Your task to perform on an android device: toggle airplane mode Image 0: 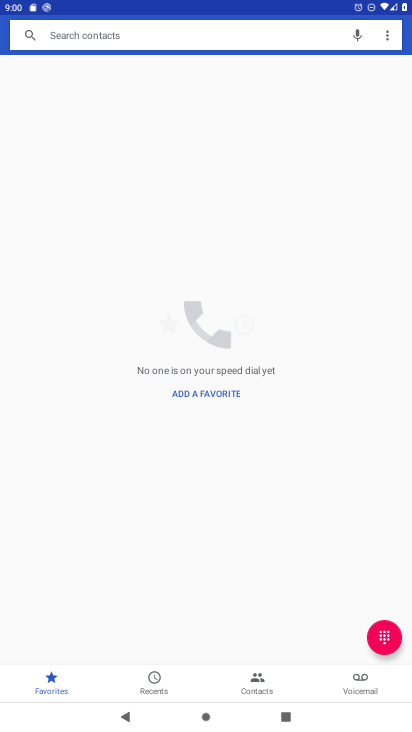
Step 0: press home button
Your task to perform on an android device: toggle airplane mode Image 1: 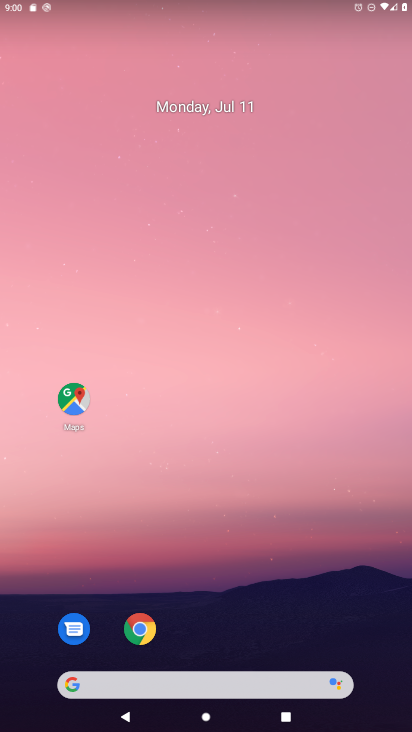
Step 1: drag from (243, 610) to (211, 9)
Your task to perform on an android device: toggle airplane mode Image 2: 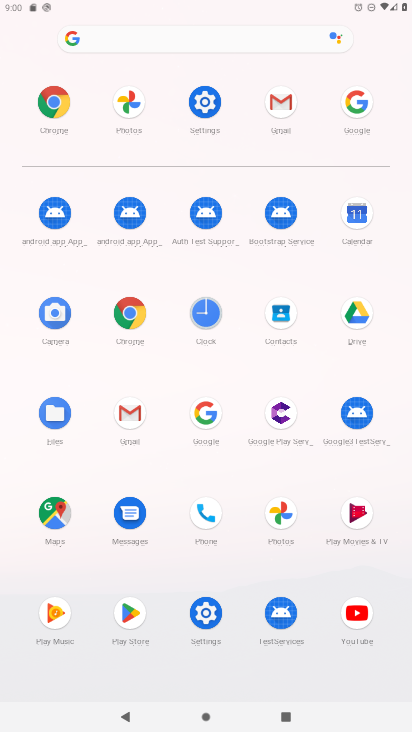
Step 2: click (208, 100)
Your task to perform on an android device: toggle airplane mode Image 3: 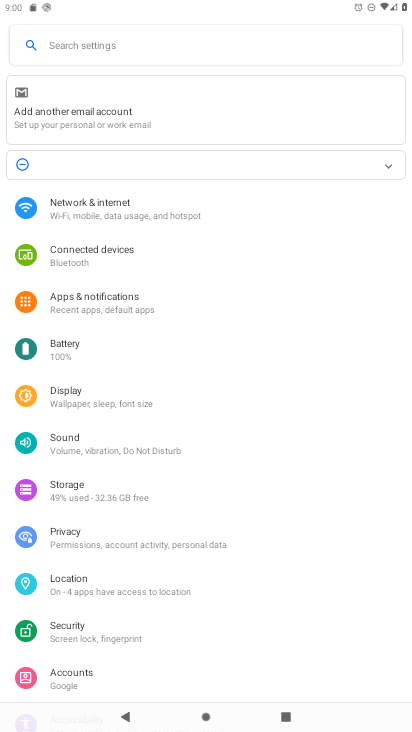
Step 3: click (139, 217)
Your task to perform on an android device: toggle airplane mode Image 4: 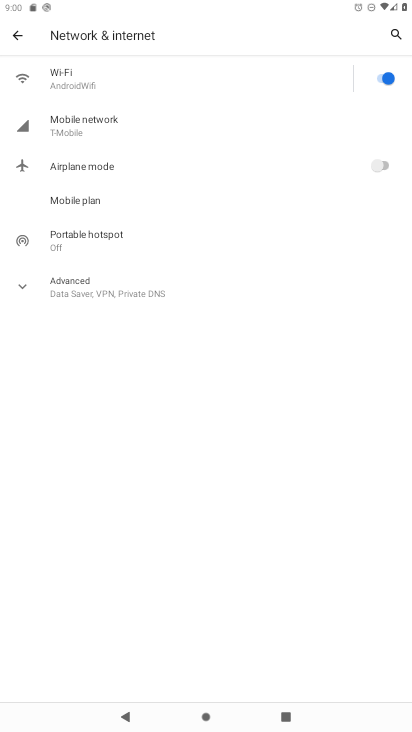
Step 4: click (380, 163)
Your task to perform on an android device: toggle airplane mode Image 5: 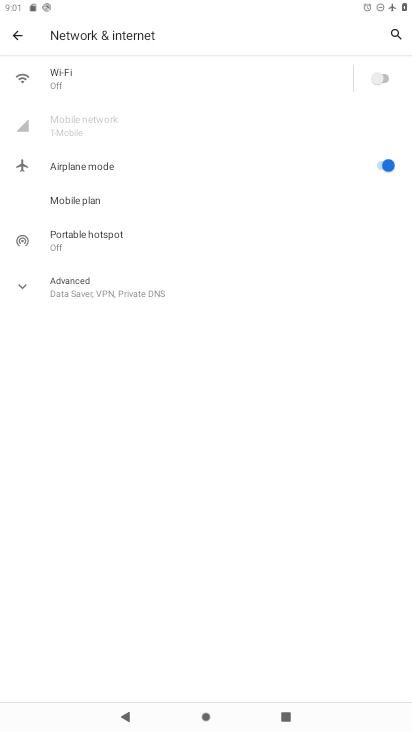
Step 5: task complete